Your task to perform on an android device: Open display settings Image 0: 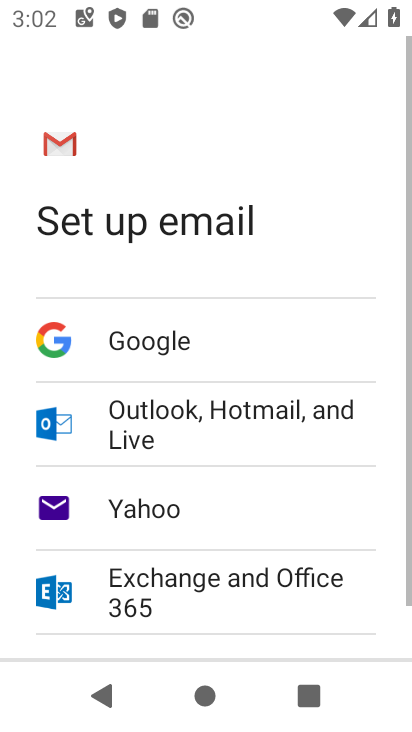
Step 0: press home button
Your task to perform on an android device: Open display settings Image 1: 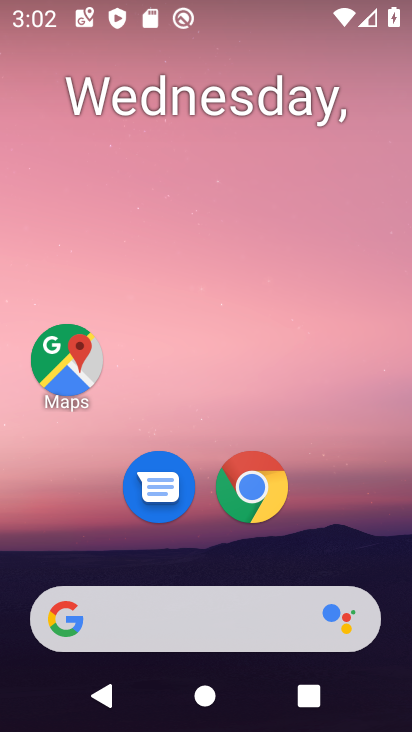
Step 1: drag from (182, 593) to (213, 297)
Your task to perform on an android device: Open display settings Image 2: 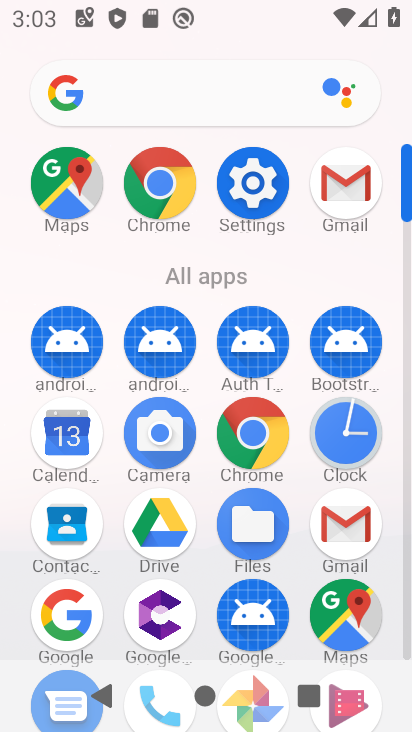
Step 2: click (260, 200)
Your task to perform on an android device: Open display settings Image 3: 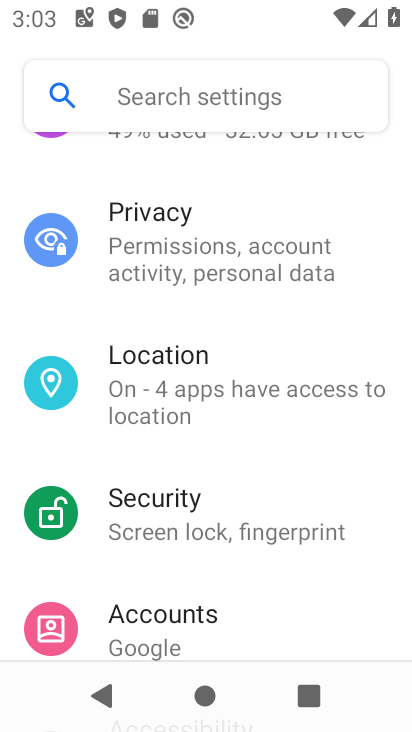
Step 3: drag from (157, 376) to (134, 714)
Your task to perform on an android device: Open display settings Image 4: 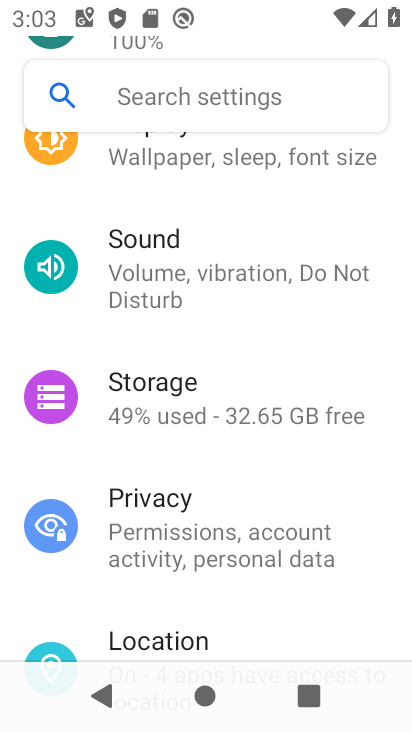
Step 4: drag from (206, 343) to (205, 620)
Your task to perform on an android device: Open display settings Image 5: 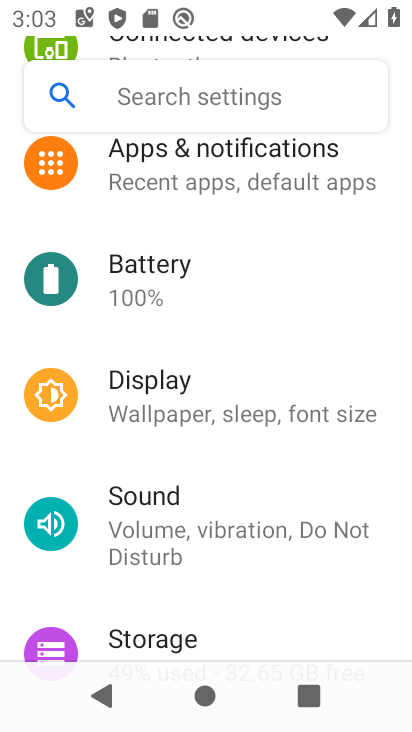
Step 5: click (200, 405)
Your task to perform on an android device: Open display settings Image 6: 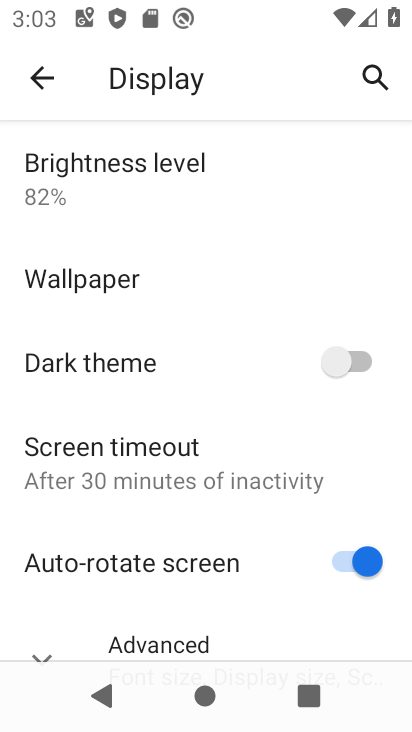
Step 6: task complete